Your task to perform on an android device: Open CNN.com Image 0: 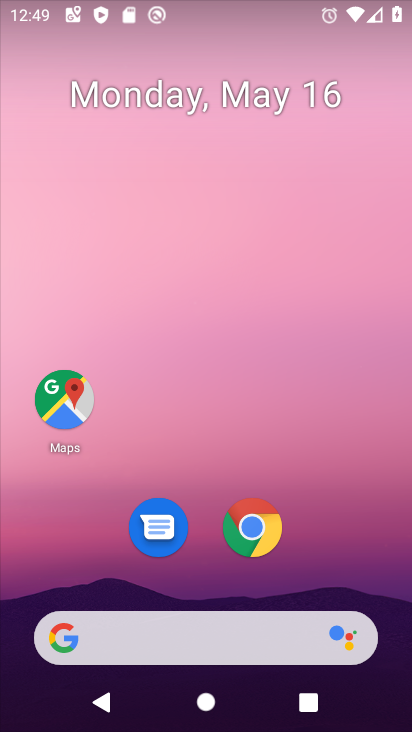
Step 0: click (247, 523)
Your task to perform on an android device: Open CNN.com Image 1: 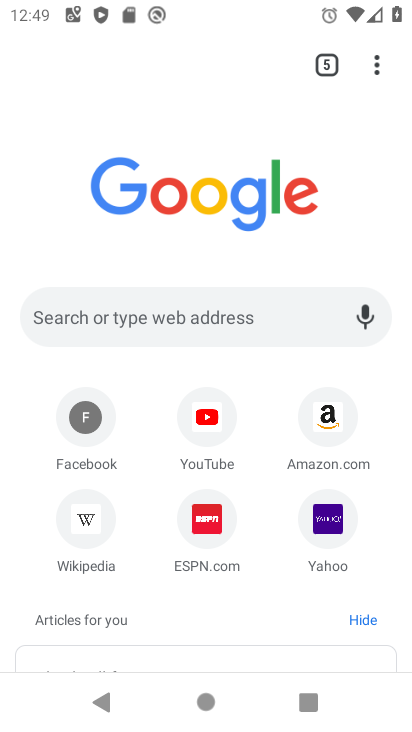
Step 1: click (228, 330)
Your task to perform on an android device: Open CNN.com Image 2: 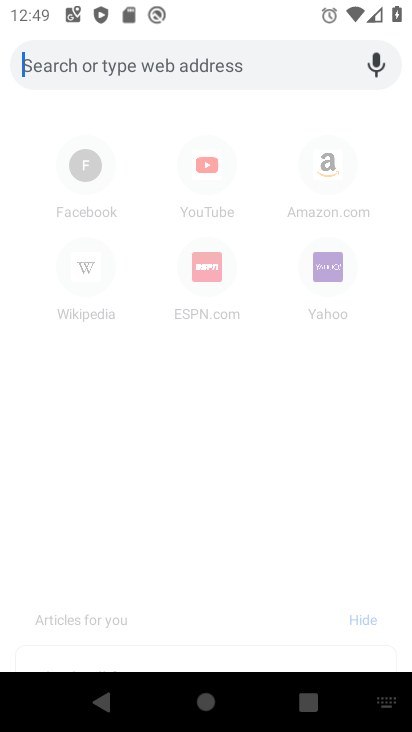
Step 2: type "cnn.com"
Your task to perform on an android device: Open CNN.com Image 3: 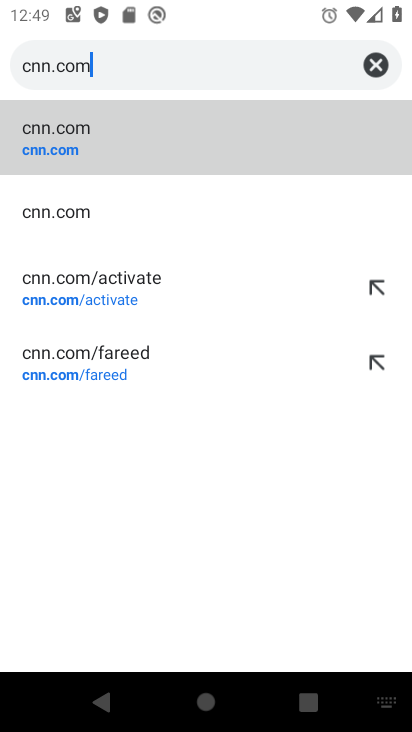
Step 3: click (170, 145)
Your task to perform on an android device: Open CNN.com Image 4: 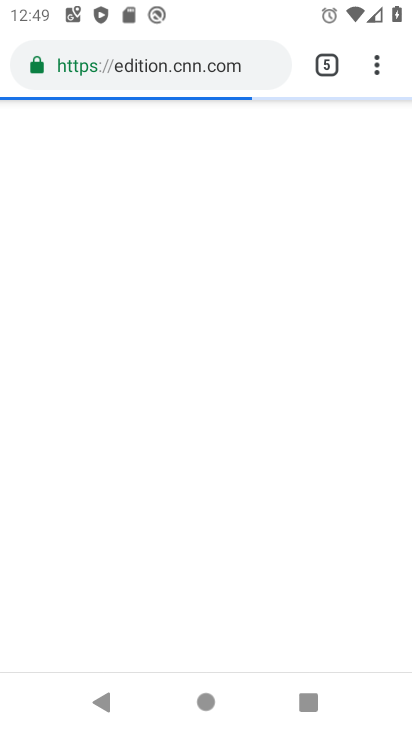
Step 4: task complete